Your task to perform on an android device: Open CNN.com Image 0: 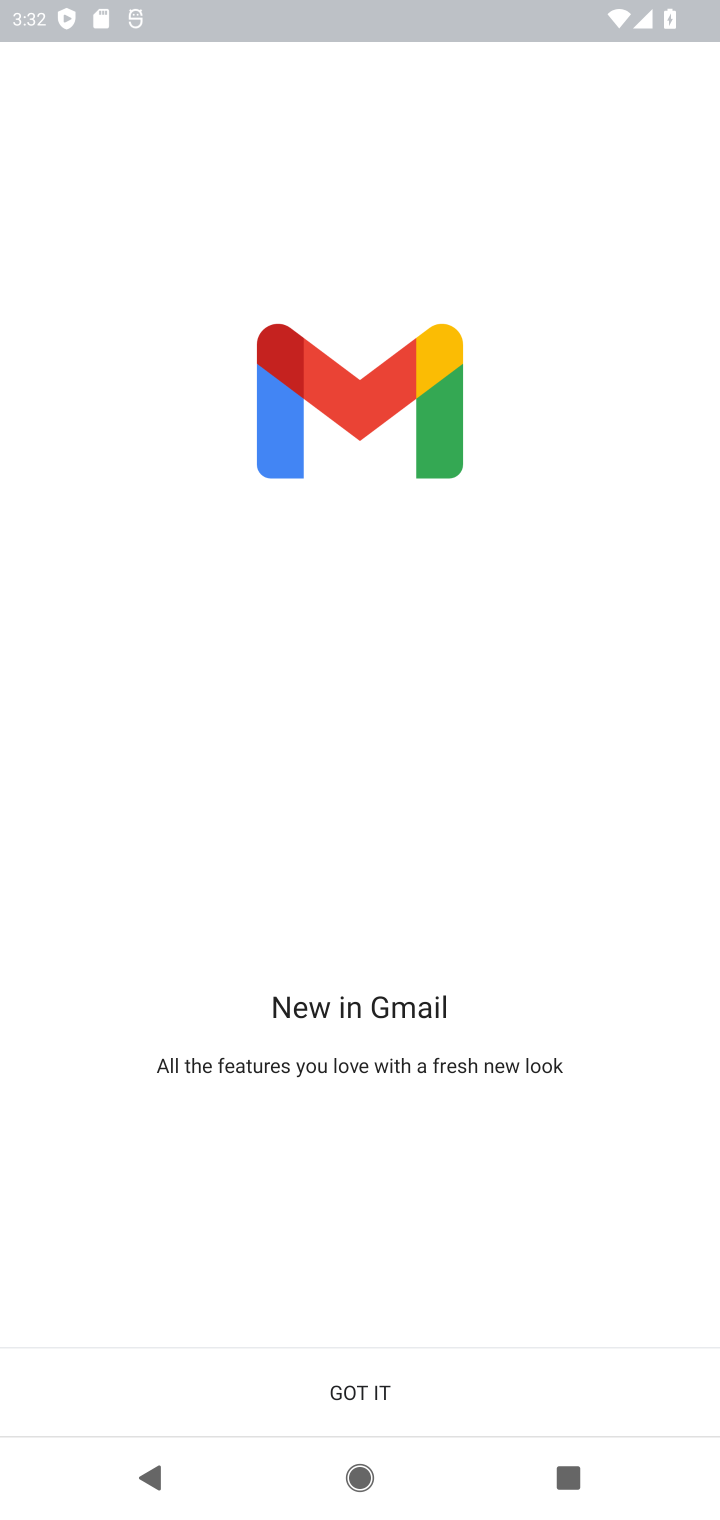
Step 0: press home button
Your task to perform on an android device: Open CNN.com Image 1: 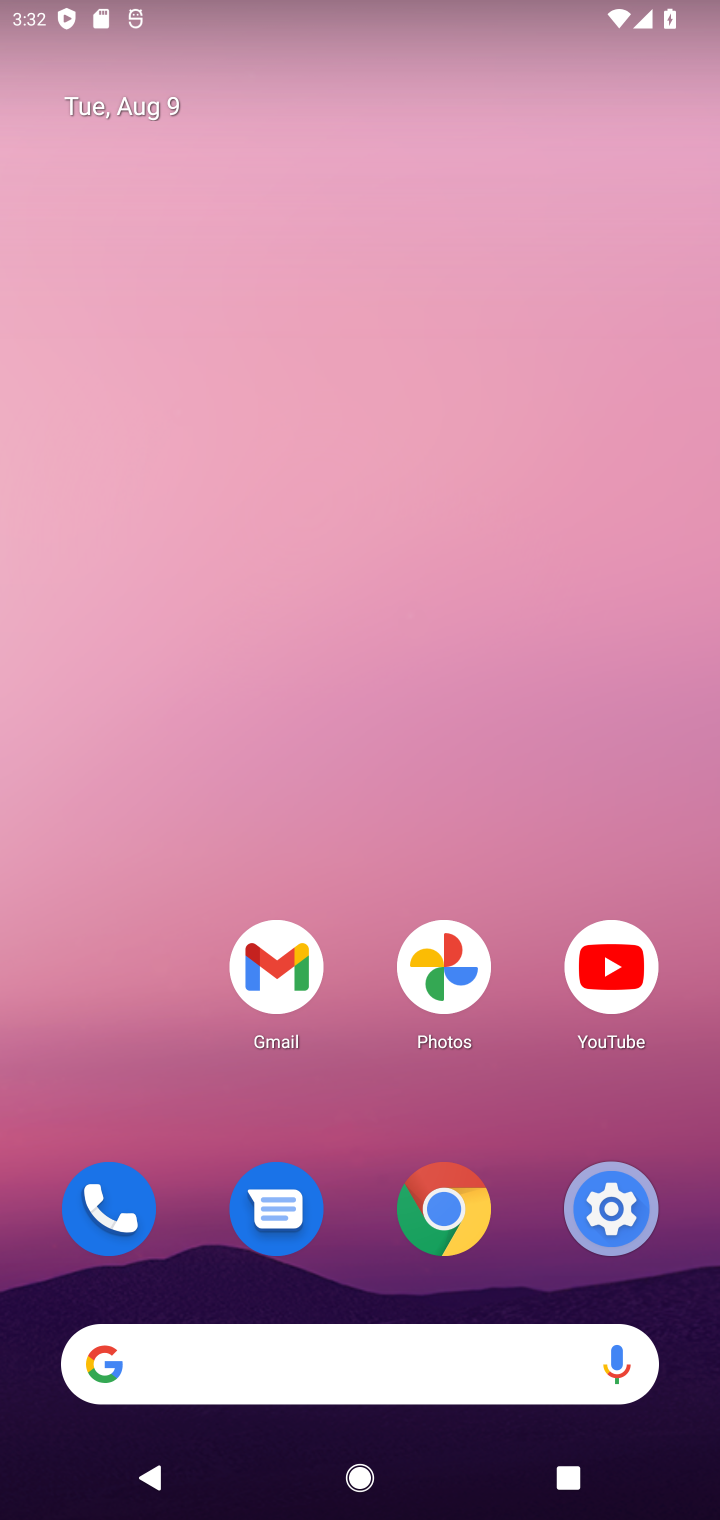
Step 1: drag from (347, 1152) to (345, 192)
Your task to perform on an android device: Open CNN.com Image 2: 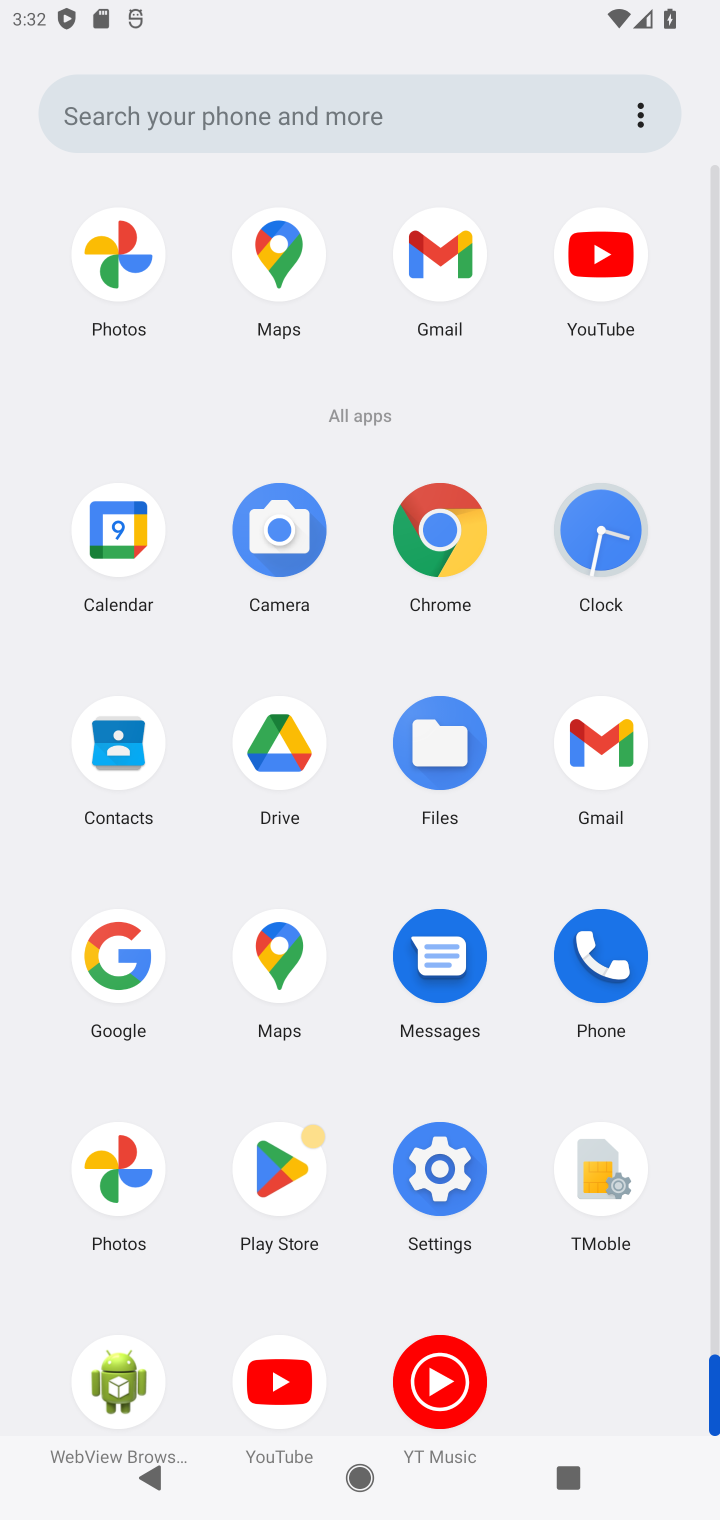
Step 2: click (426, 518)
Your task to perform on an android device: Open CNN.com Image 3: 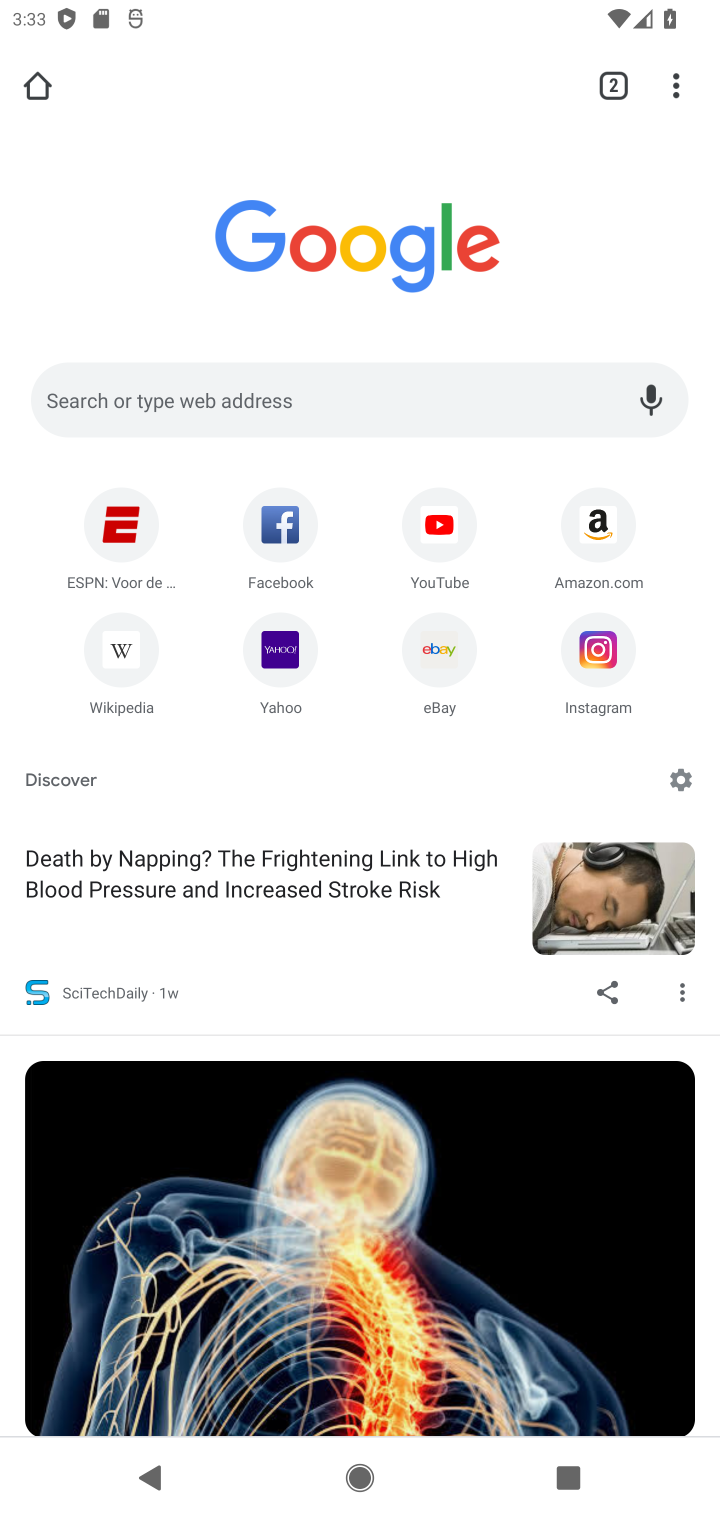
Step 3: click (217, 404)
Your task to perform on an android device: Open CNN.com Image 4: 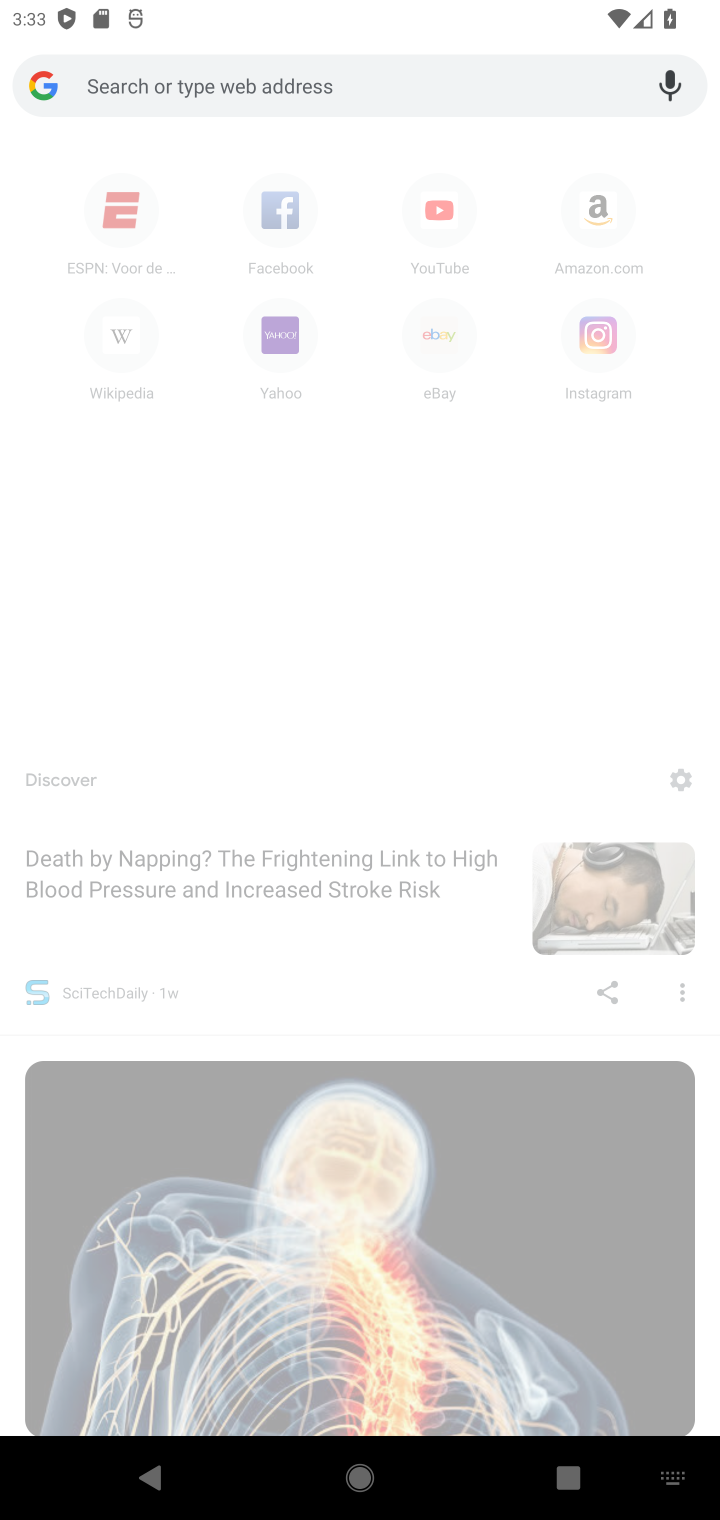
Step 4: type "CNN.com"
Your task to perform on an android device: Open CNN.com Image 5: 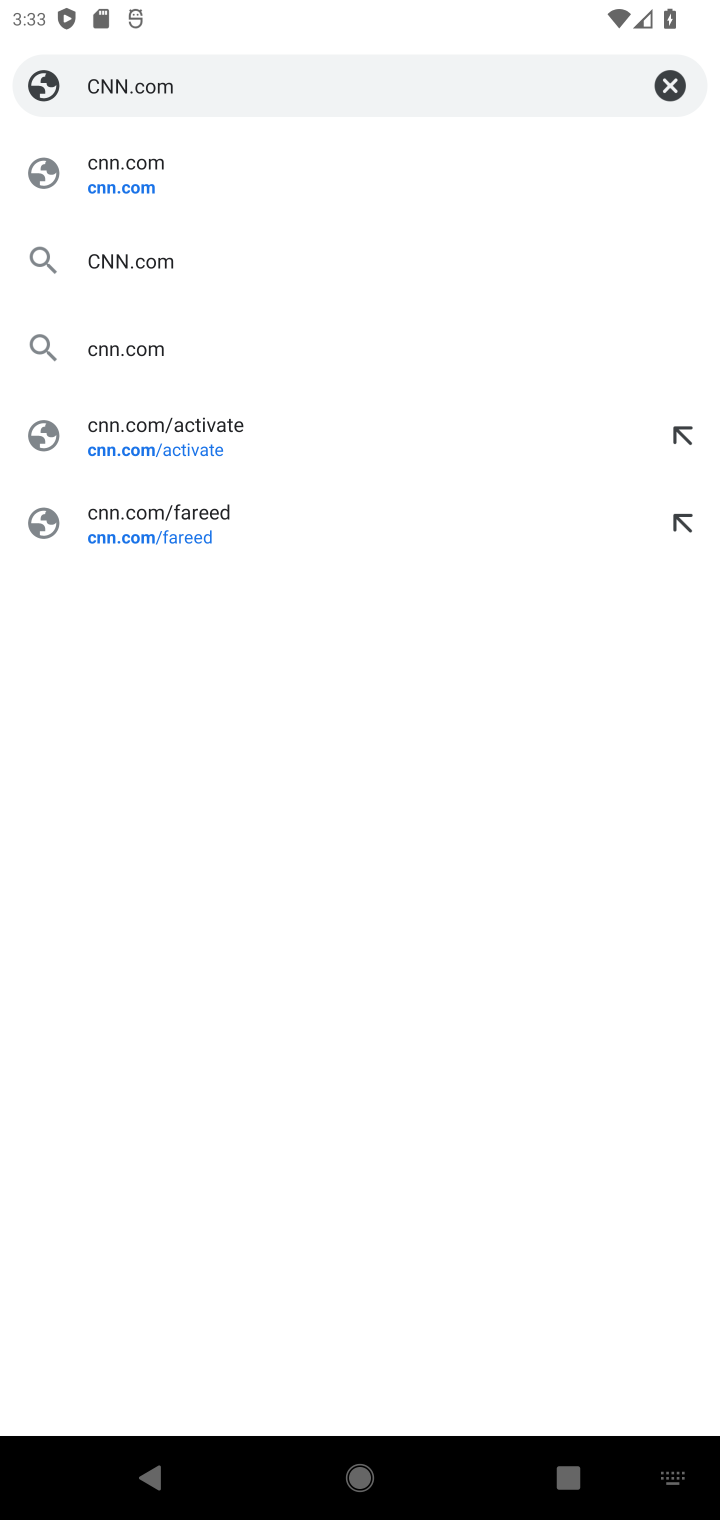
Step 5: click (128, 180)
Your task to perform on an android device: Open CNN.com Image 6: 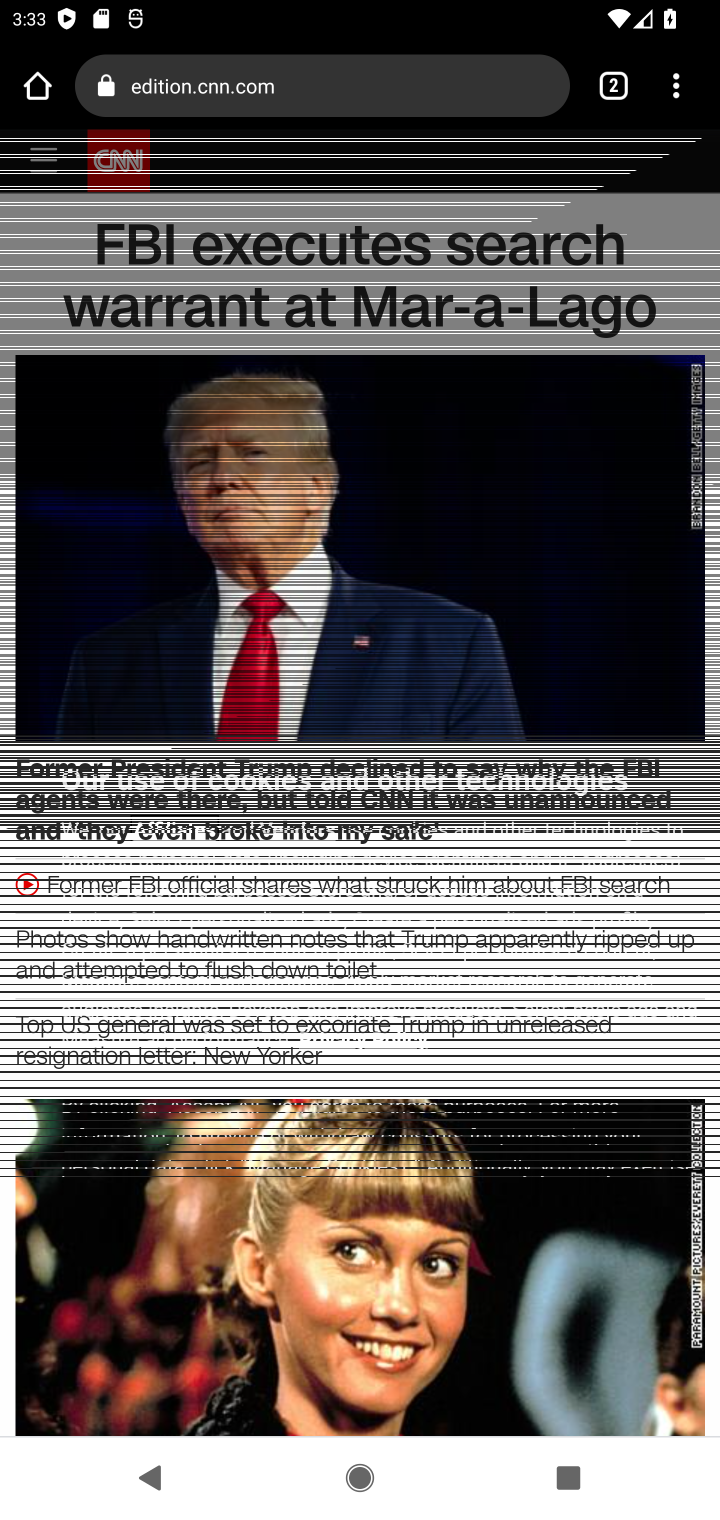
Step 6: task complete